Your task to perform on an android device: turn off wifi Image 0: 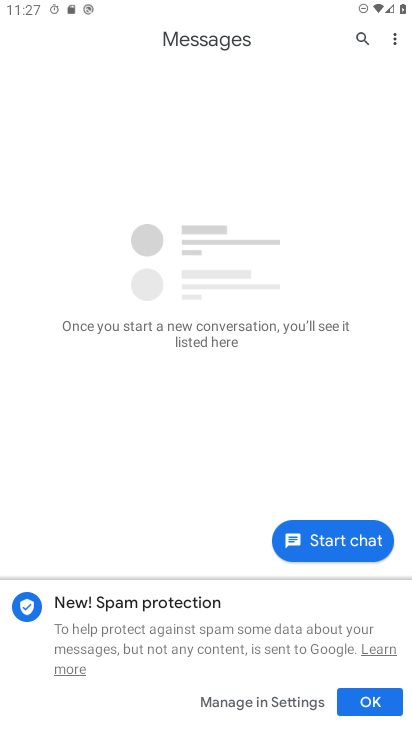
Step 0: press home button
Your task to perform on an android device: turn off wifi Image 1: 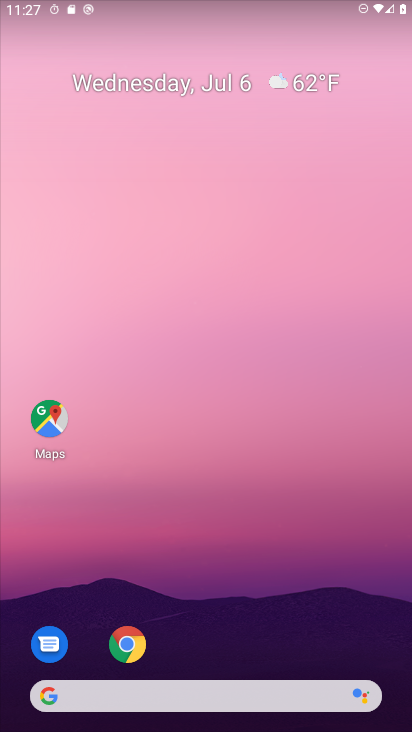
Step 1: drag from (163, 6) to (195, 554)
Your task to perform on an android device: turn off wifi Image 2: 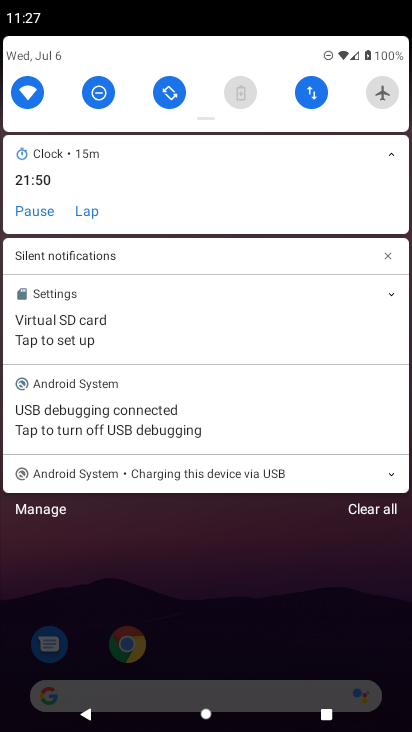
Step 2: click (27, 96)
Your task to perform on an android device: turn off wifi Image 3: 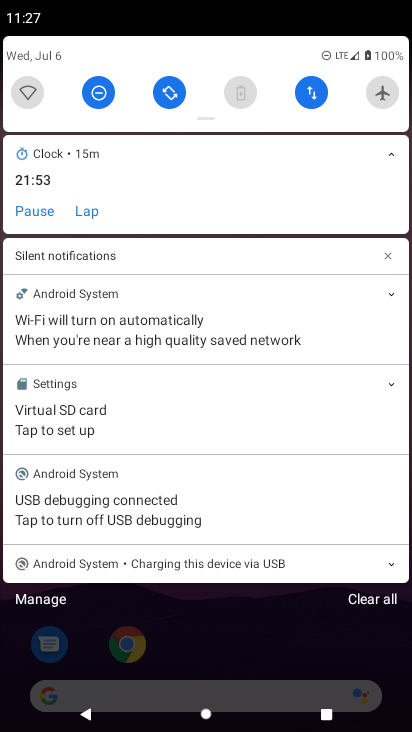
Step 3: task complete